Your task to perform on an android device: Open Google Maps and go to "Timeline" Image 0: 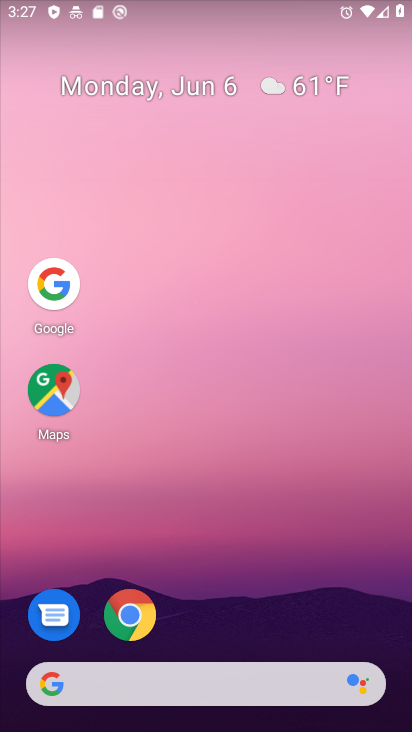
Step 0: click (62, 394)
Your task to perform on an android device: Open Google Maps and go to "Timeline" Image 1: 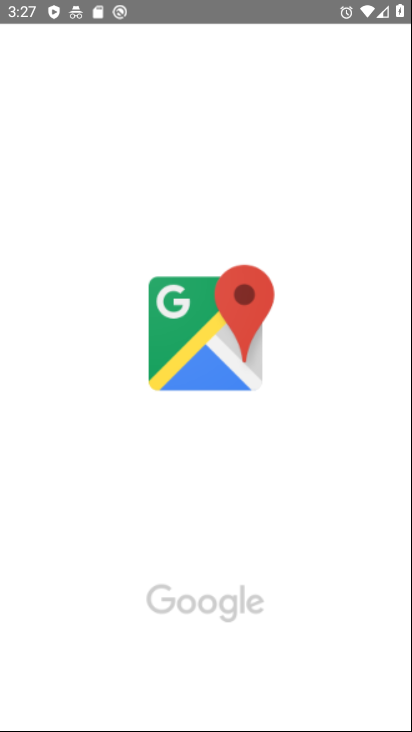
Step 1: task complete